Your task to perform on an android device: Open Reddit.com Image 0: 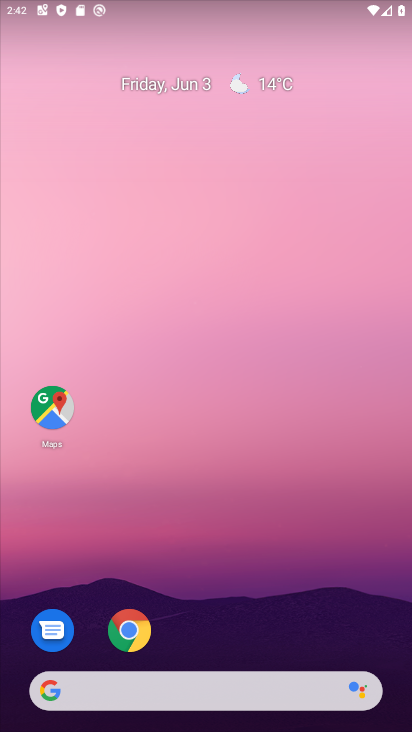
Step 0: click (127, 623)
Your task to perform on an android device: Open Reddit.com Image 1: 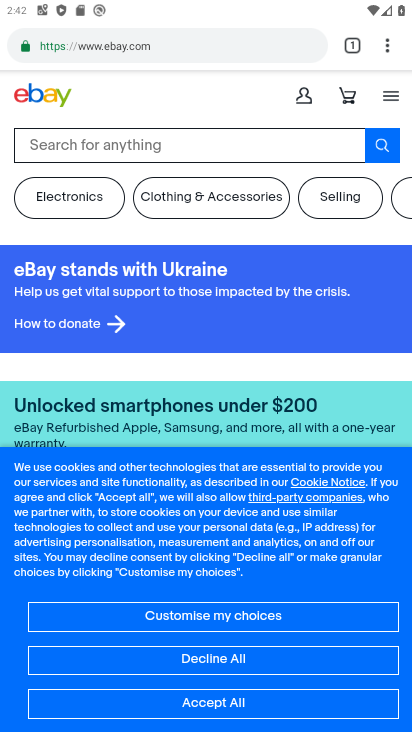
Step 1: click (134, 53)
Your task to perform on an android device: Open Reddit.com Image 2: 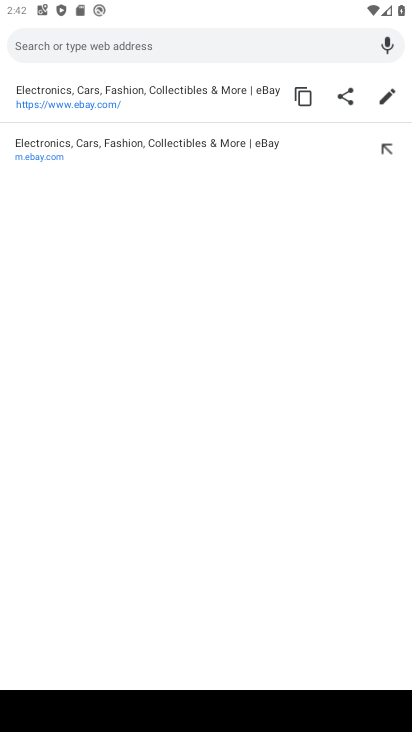
Step 2: type "Reddit.com"
Your task to perform on an android device: Open Reddit.com Image 3: 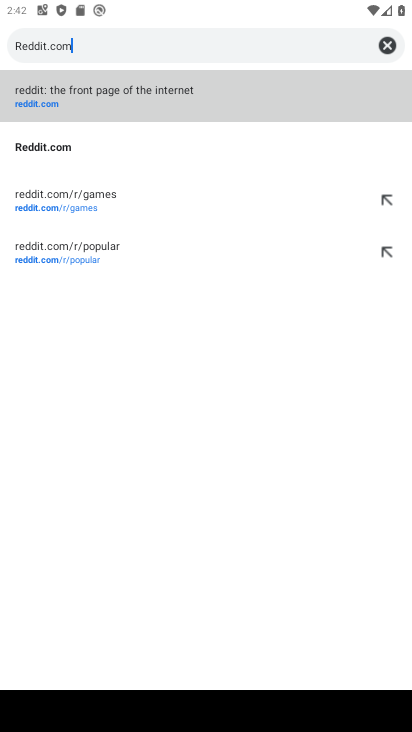
Step 3: click (46, 105)
Your task to perform on an android device: Open Reddit.com Image 4: 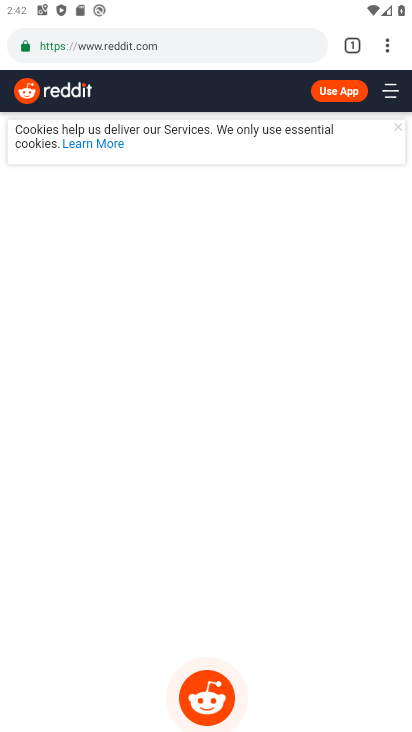
Step 4: task complete